Your task to perform on an android device: change the clock display to show seconds Image 0: 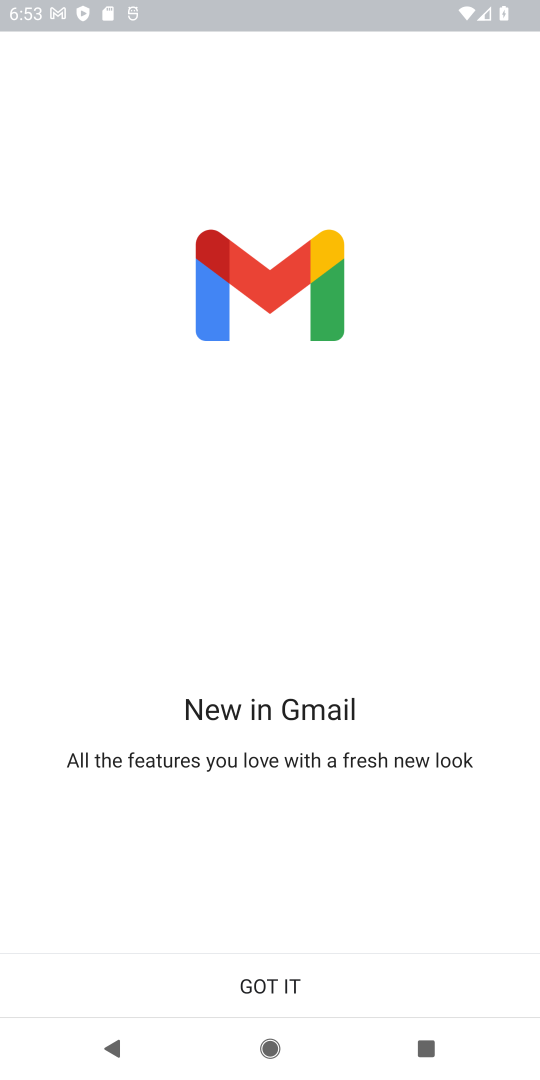
Step 0: press home button
Your task to perform on an android device: change the clock display to show seconds Image 1: 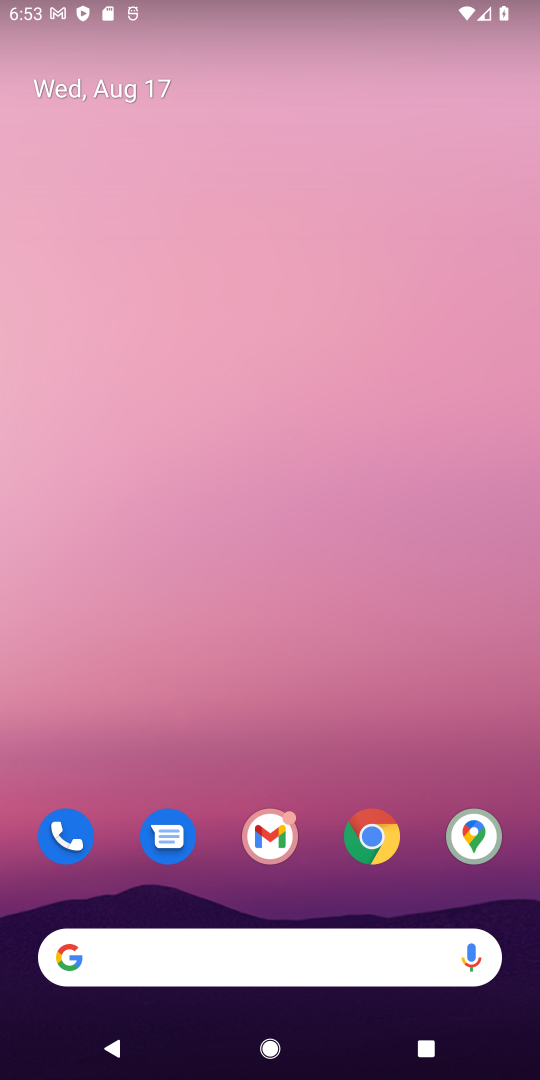
Step 1: drag from (210, 918) to (242, 177)
Your task to perform on an android device: change the clock display to show seconds Image 2: 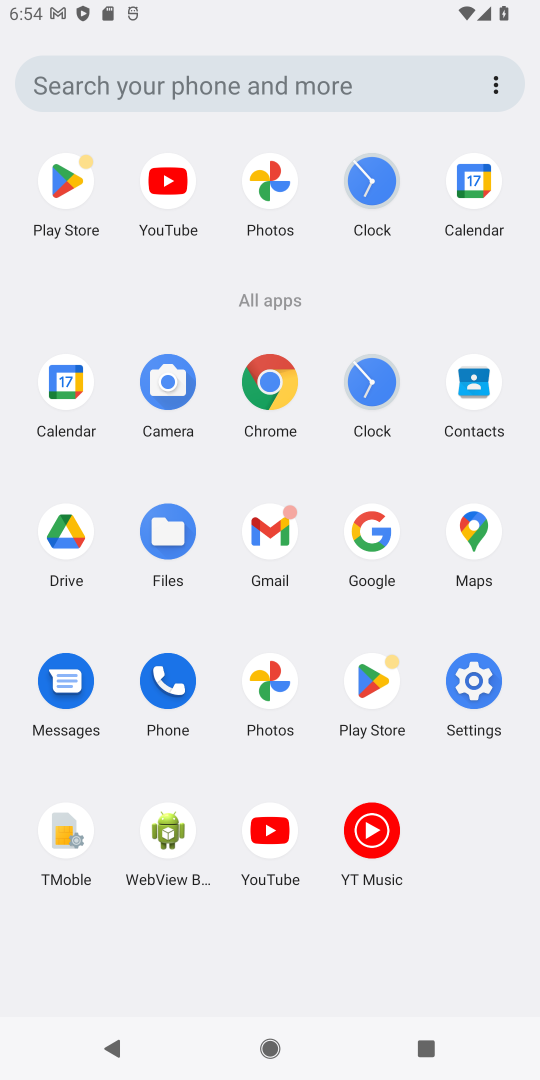
Step 2: click (385, 368)
Your task to perform on an android device: change the clock display to show seconds Image 3: 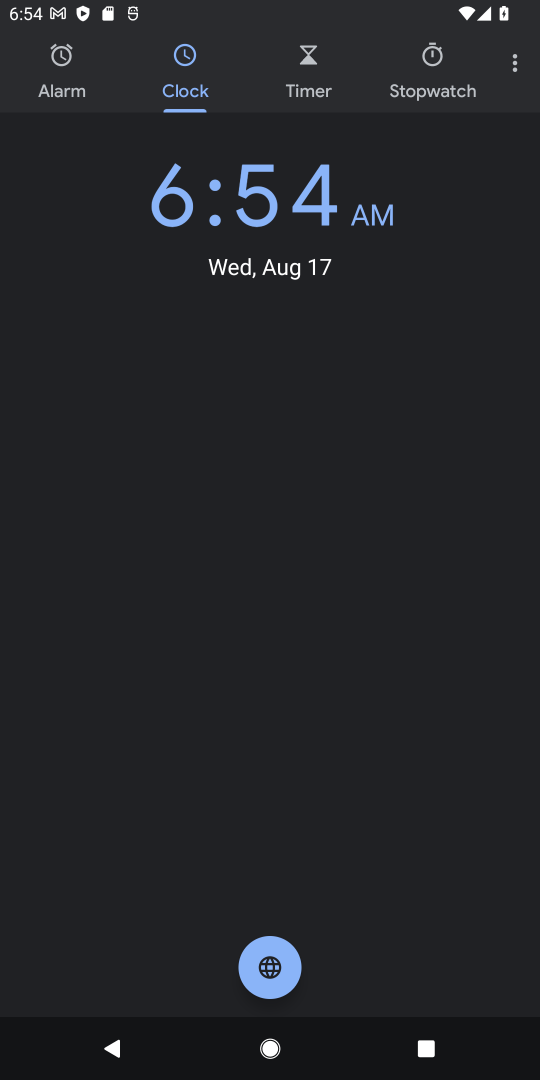
Step 3: click (507, 66)
Your task to perform on an android device: change the clock display to show seconds Image 4: 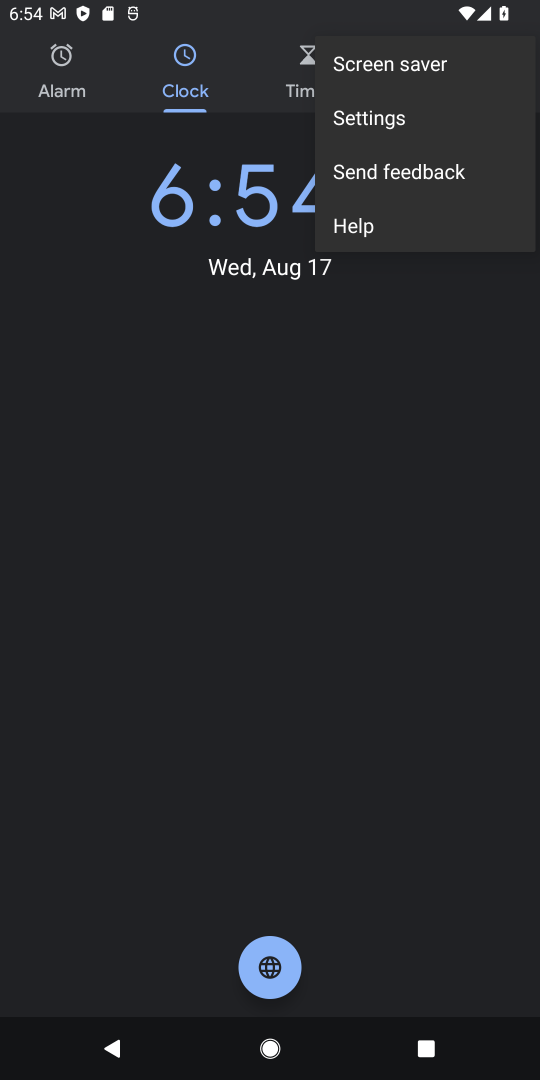
Step 4: click (371, 120)
Your task to perform on an android device: change the clock display to show seconds Image 5: 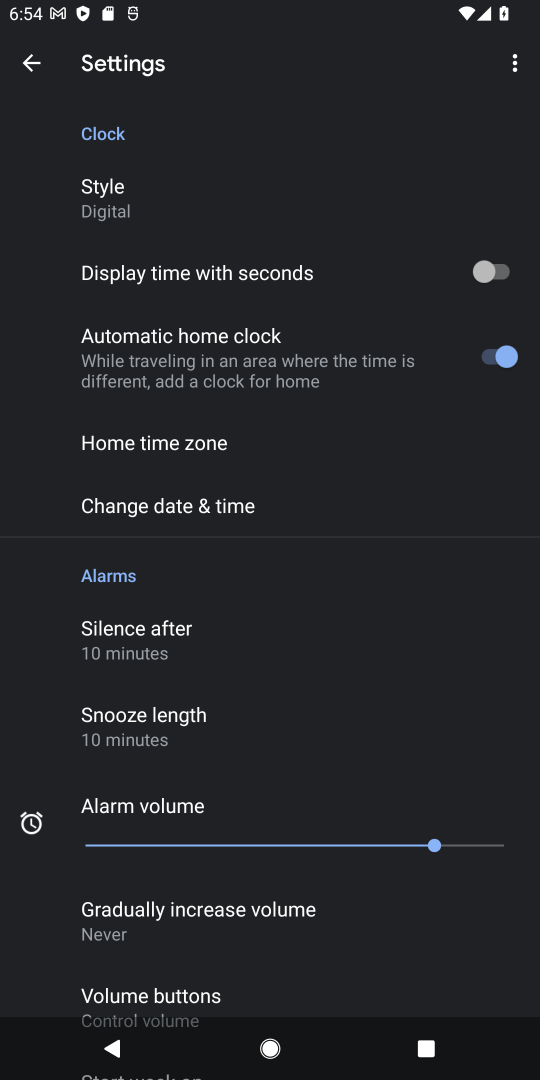
Step 5: click (513, 259)
Your task to perform on an android device: change the clock display to show seconds Image 6: 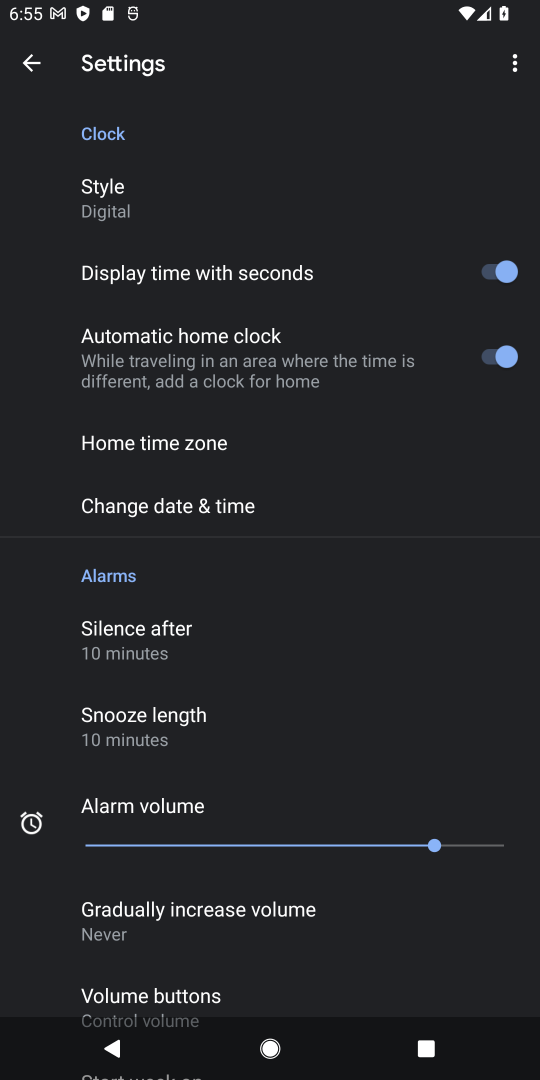
Step 6: task complete